Your task to perform on an android device: Open CNN.com Image 0: 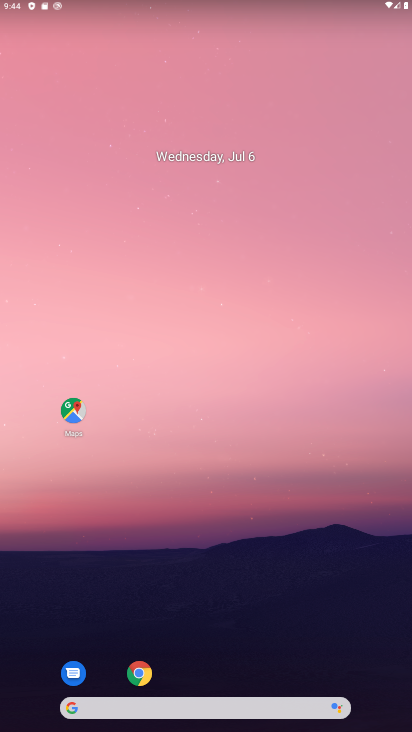
Step 0: click (154, 673)
Your task to perform on an android device: Open CNN.com Image 1: 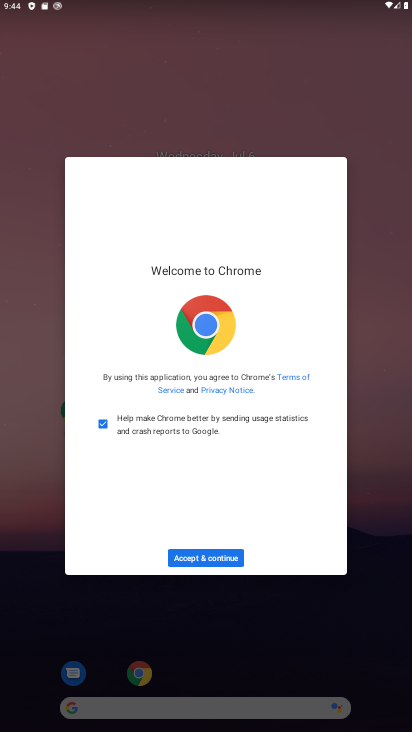
Step 1: click (197, 551)
Your task to perform on an android device: Open CNN.com Image 2: 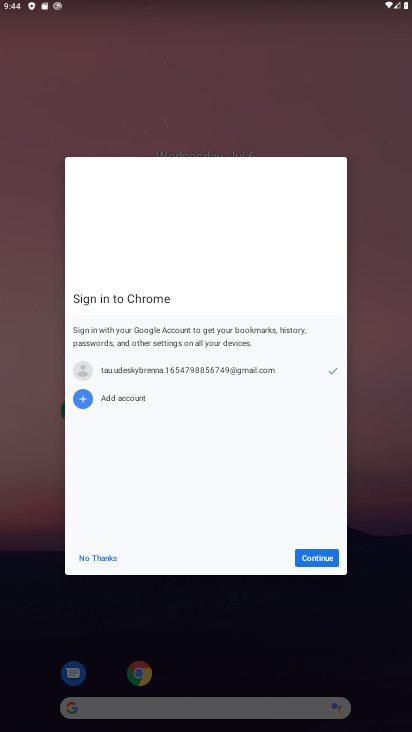
Step 2: click (299, 558)
Your task to perform on an android device: Open CNN.com Image 3: 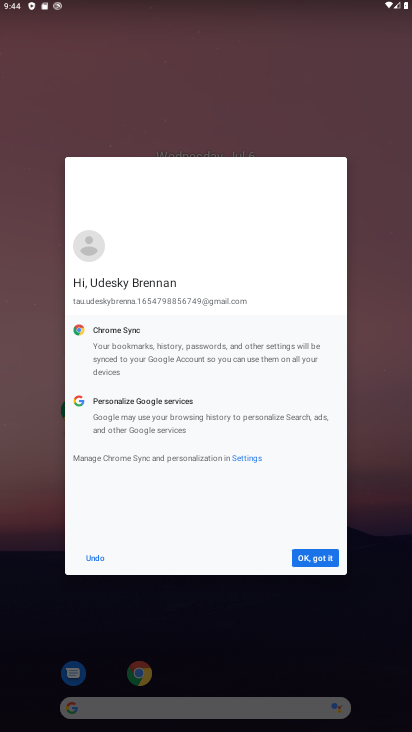
Step 3: click (299, 558)
Your task to perform on an android device: Open CNN.com Image 4: 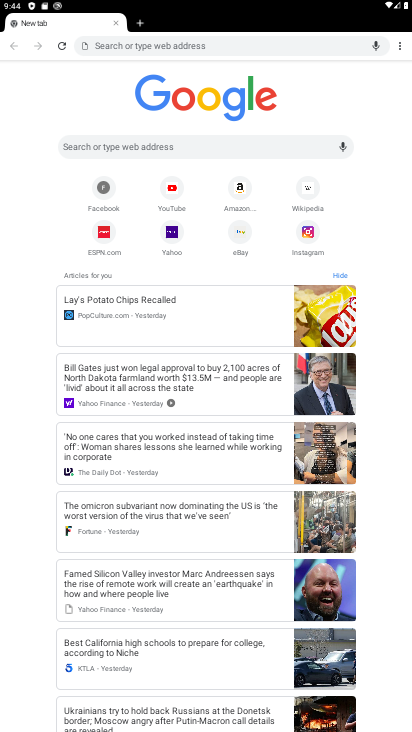
Step 4: click (155, 142)
Your task to perform on an android device: Open CNN.com Image 5: 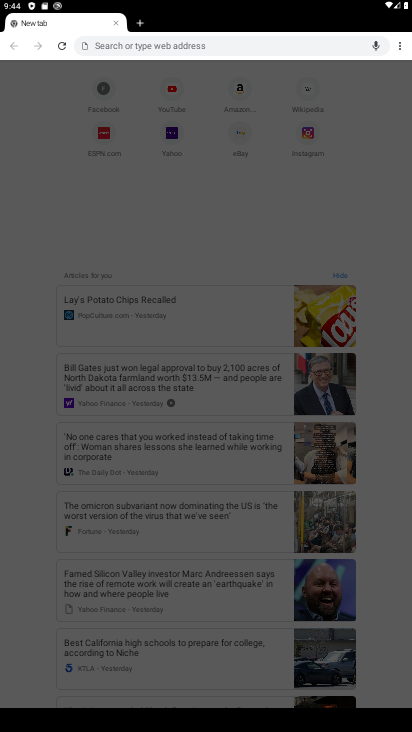
Step 5: type "cnn"
Your task to perform on an android device: Open CNN.com Image 6: 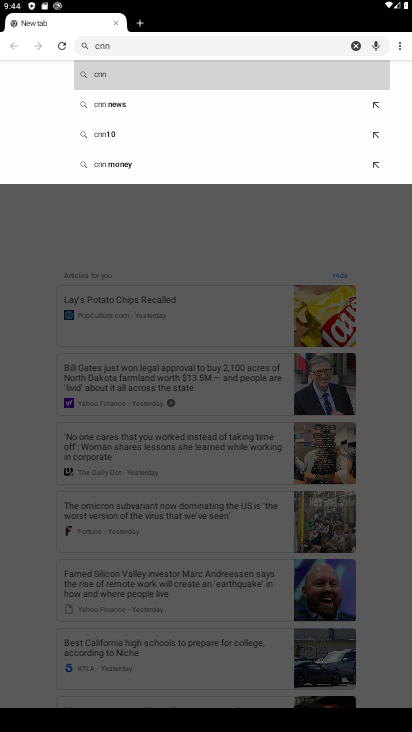
Step 6: click (128, 104)
Your task to perform on an android device: Open CNN.com Image 7: 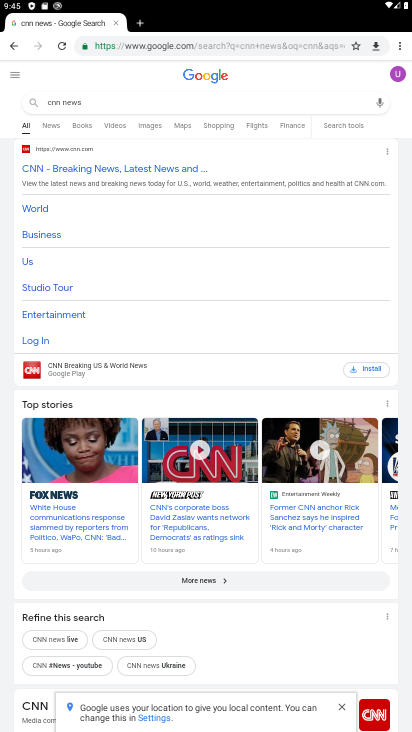
Step 7: click (94, 169)
Your task to perform on an android device: Open CNN.com Image 8: 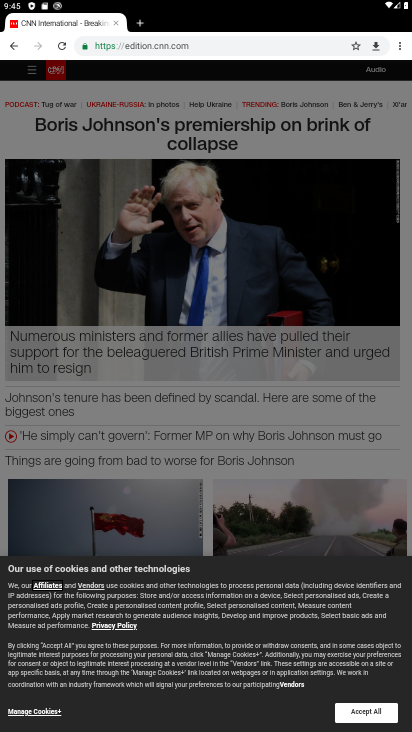
Step 8: task complete